Your task to perform on an android device: open sync settings in chrome Image 0: 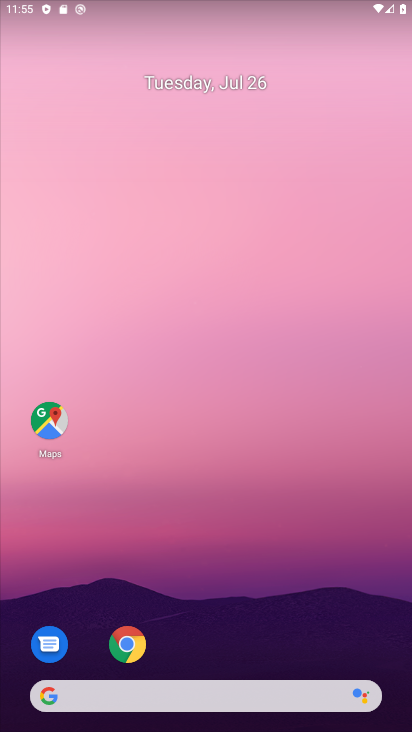
Step 0: drag from (316, 3) to (248, 5)
Your task to perform on an android device: open sync settings in chrome Image 1: 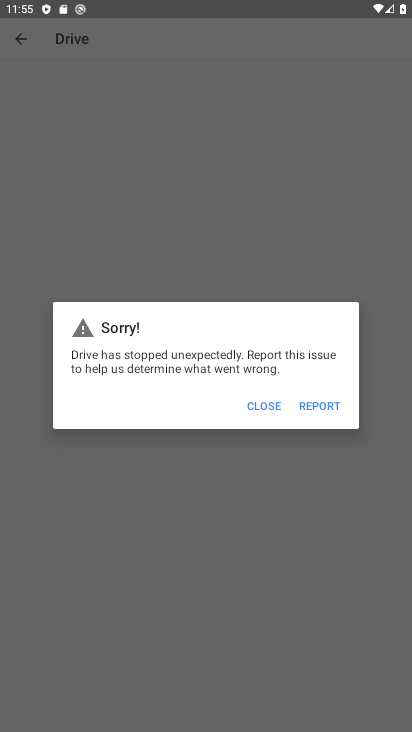
Step 1: click (253, 402)
Your task to perform on an android device: open sync settings in chrome Image 2: 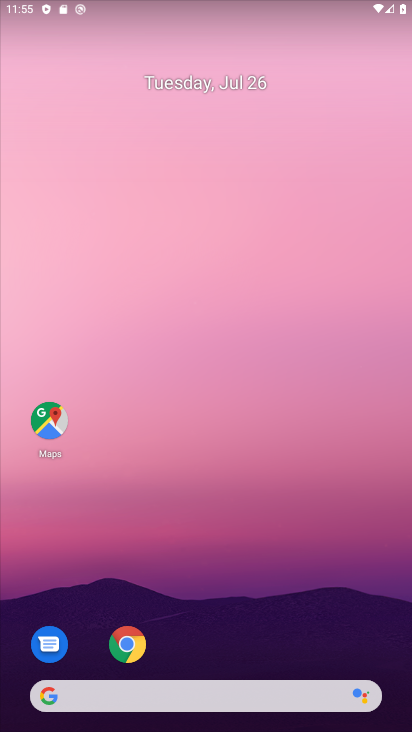
Step 2: drag from (241, 615) to (181, 47)
Your task to perform on an android device: open sync settings in chrome Image 3: 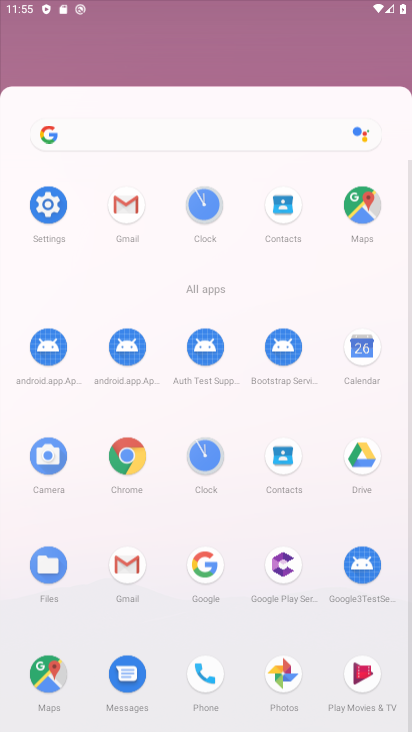
Step 3: drag from (289, 559) to (277, 17)
Your task to perform on an android device: open sync settings in chrome Image 4: 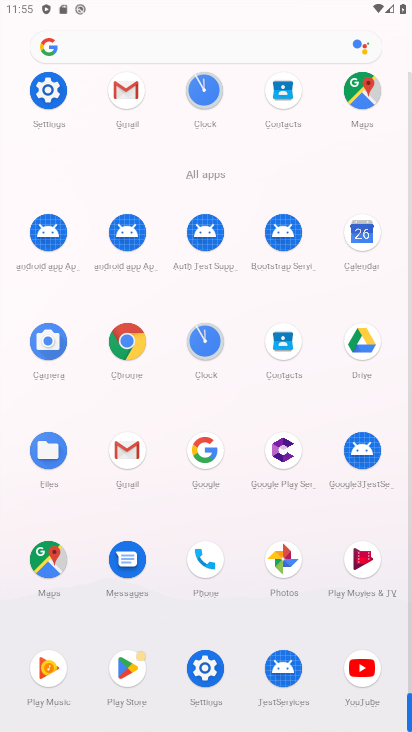
Step 4: click (119, 338)
Your task to perform on an android device: open sync settings in chrome Image 5: 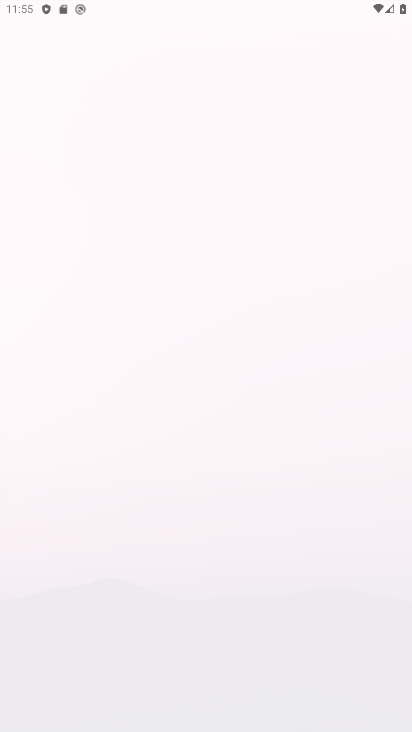
Step 5: click (122, 343)
Your task to perform on an android device: open sync settings in chrome Image 6: 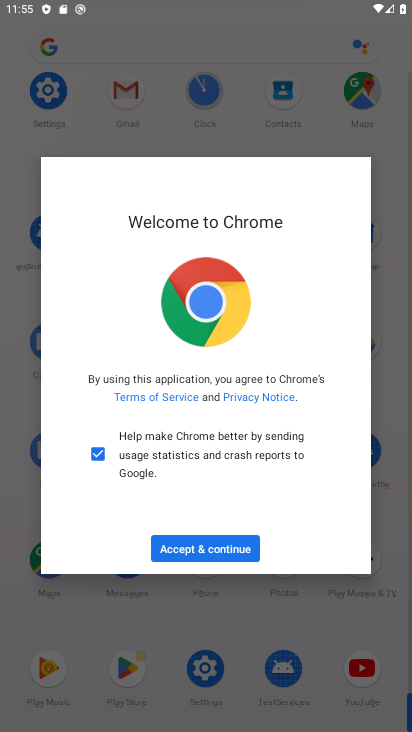
Step 6: click (222, 548)
Your task to perform on an android device: open sync settings in chrome Image 7: 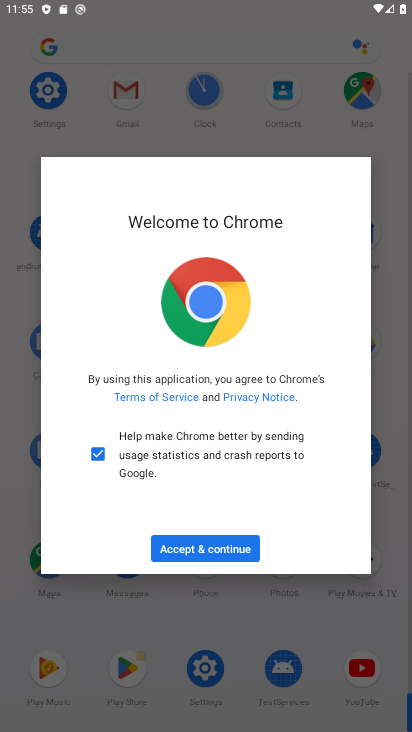
Step 7: click (226, 545)
Your task to perform on an android device: open sync settings in chrome Image 8: 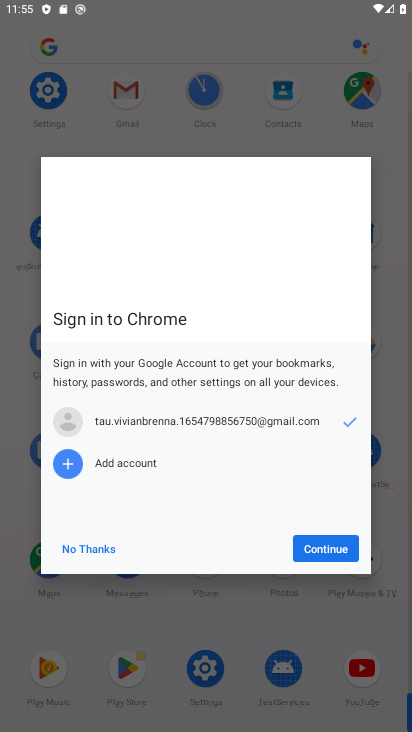
Step 8: click (78, 541)
Your task to perform on an android device: open sync settings in chrome Image 9: 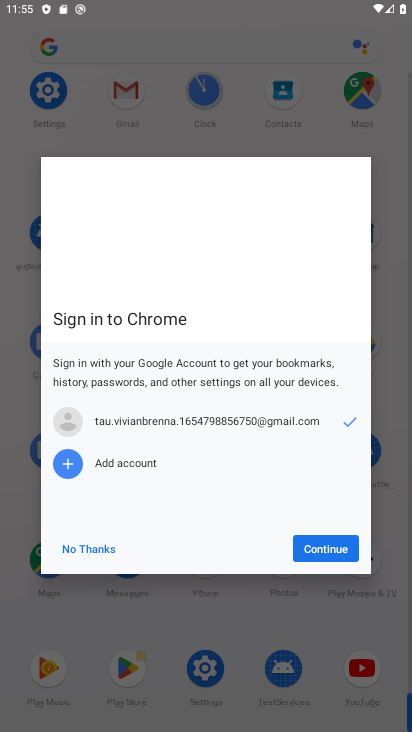
Step 9: click (77, 531)
Your task to perform on an android device: open sync settings in chrome Image 10: 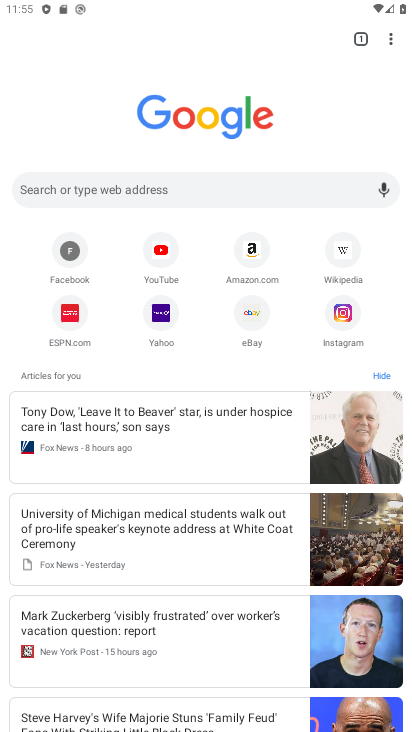
Step 10: click (389, 33)
Your task to perform on an android device: open sync settings in chrome Image 11: 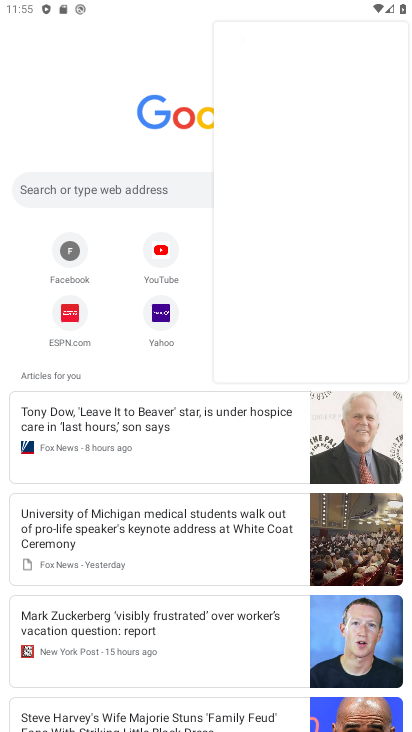
Step 11: drag from (383, 53) to (287, 475)
Your task to perform on an android device: open sync settings in chrome Image 12: 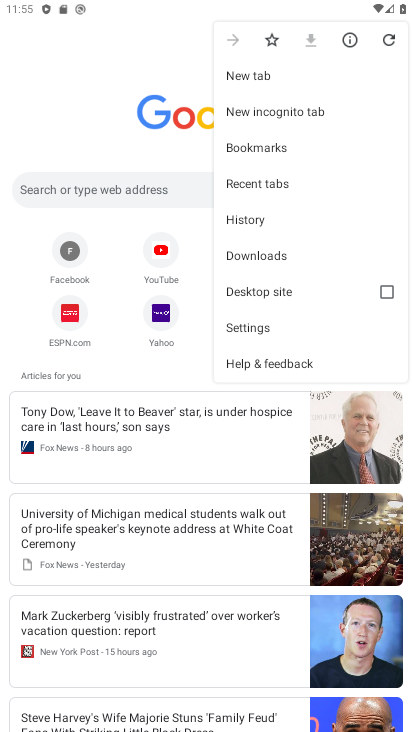
Step 12: click (246, 328)
Your task to perform on an android device: open sync settings in chrome Image 13: 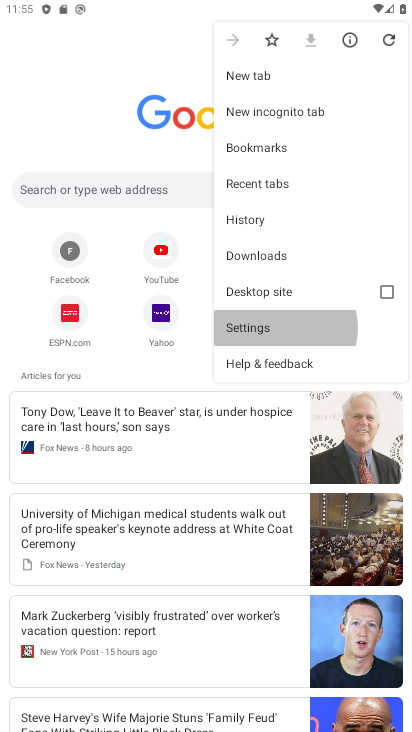
Step 13: click (245, 327)
Your task to perform on an android device: open sync settings in chrome Image 14: 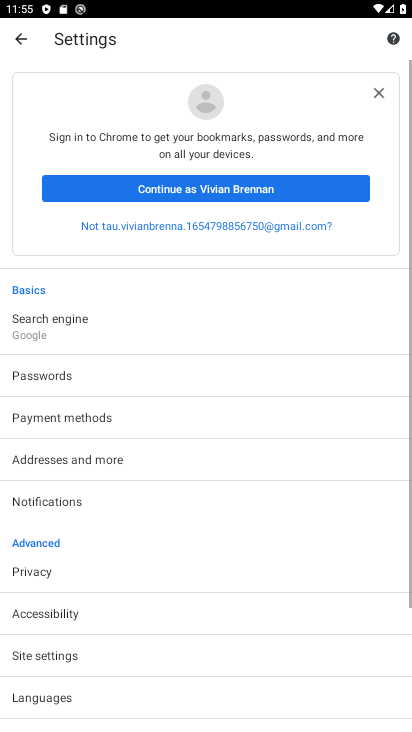
Step 14: drag from (79, 487) to (80, 9)
Your task to perform on an android device: open sync settings in chrome Image 15: 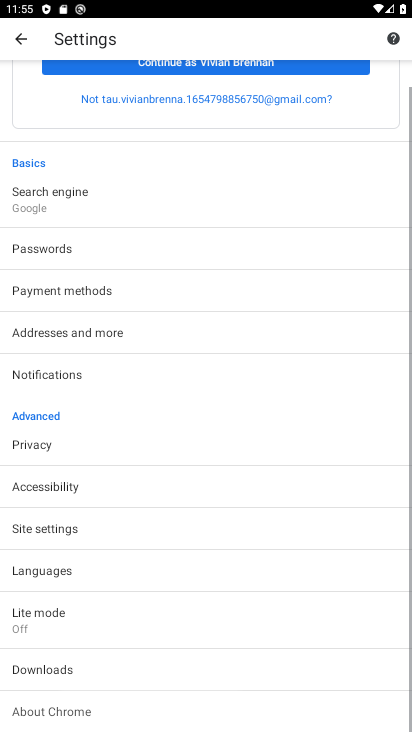
Step 15: drag from (158, 548) to (146, 120)
Your task to perform on an android device: open sync settings in chrome Image 16: 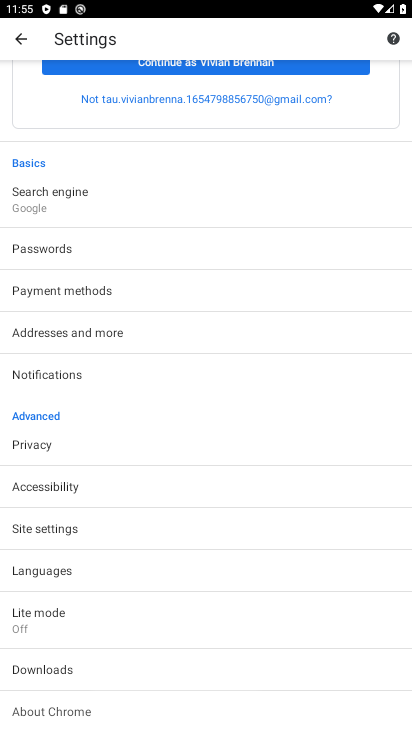
Step 16: drag from (206, 614) to (253, 177)
Your task to perform on an android device: open sync settings in chrome Image 17: 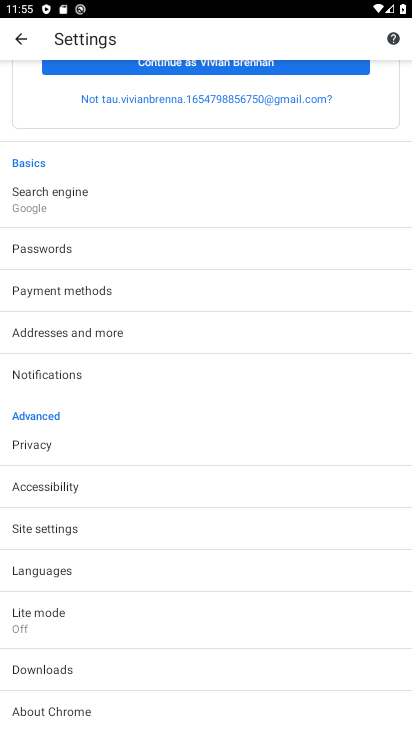
Step 17: click (37, 522)
Your task to perform on an android device: open sync settings in chrome Image 18: 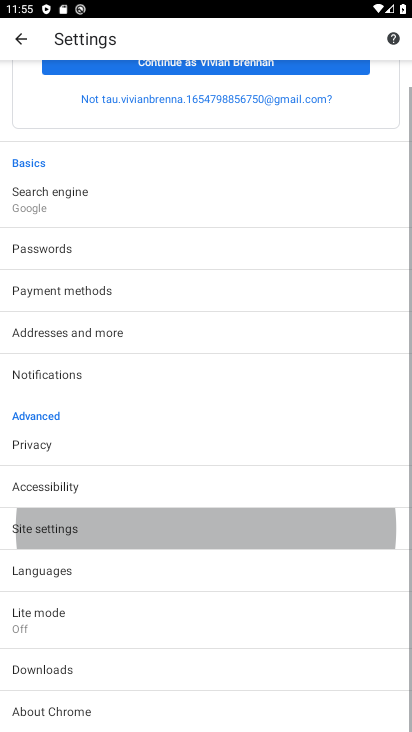
Step 18: click (42, 525)
Your task to perform on an android device: open sync settings in chrome Image 19: 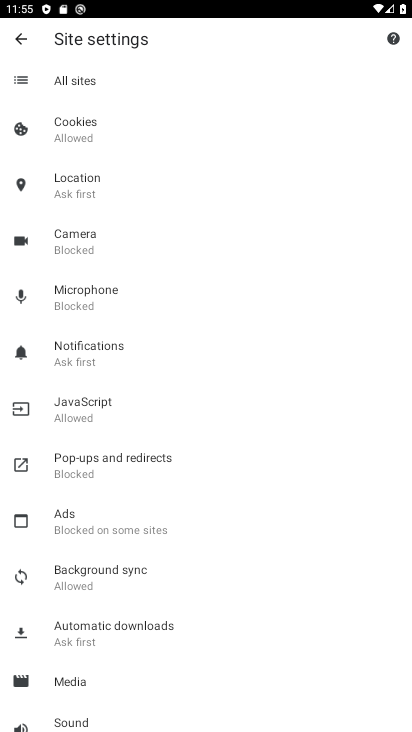
Step 19: click (53, 577)
Your task to perform on an android device: open sync settings in chrome Image 20: 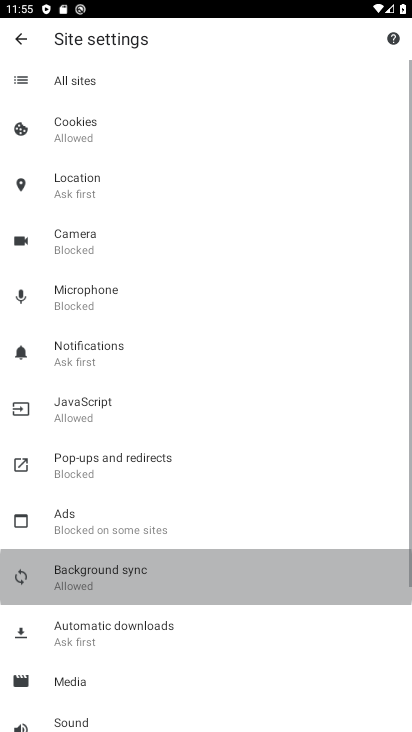
Step 20: click (59, 575)
Your task to perform on an android device: open sync settings in chrome Image 21: 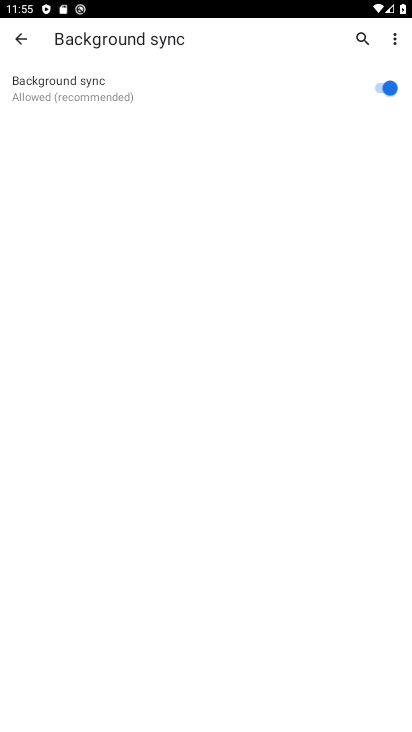
Step 21: task complete